Your task to perform on an android device: Go to Reddit.com Image 0: 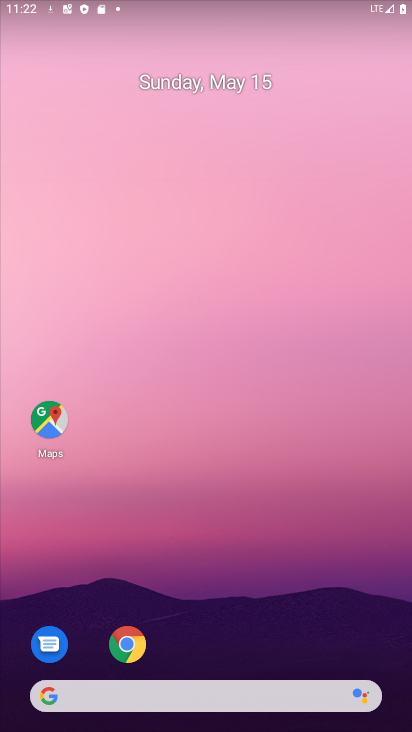
Step 0: drag from (237, 705) to (224, 227)
Your task to perform on an android device: Go to Reddit.com Image 1: 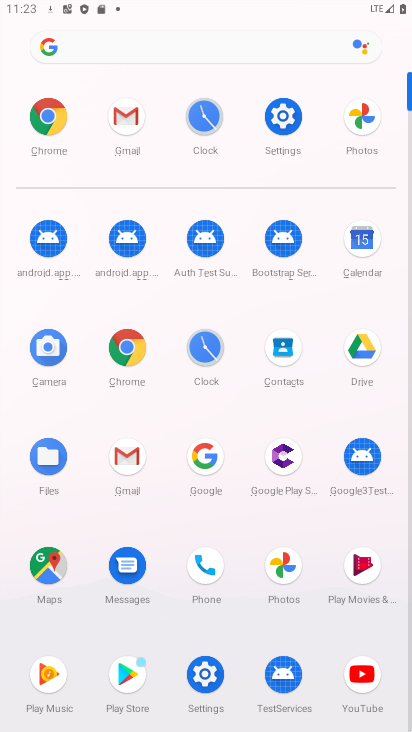
Step 1: click (40, 109)
Your task to perform on an android device: Go to Reddit.com Image 2: 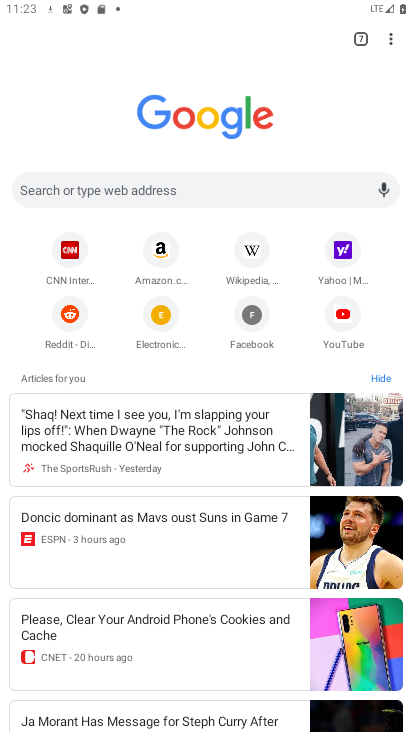
Step 2: click (134, 189)
Your task to perform on an android device: Go to Reddit.com Image 3: 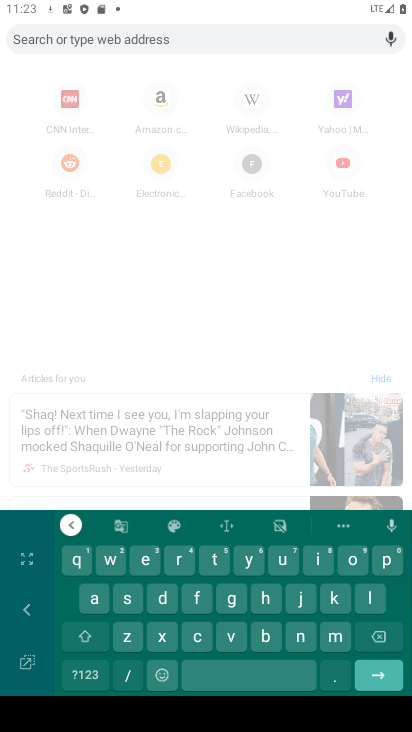
Step 3: click (31, 557)
Your task to perform on an android device: Go to Reddit.com Image 4: 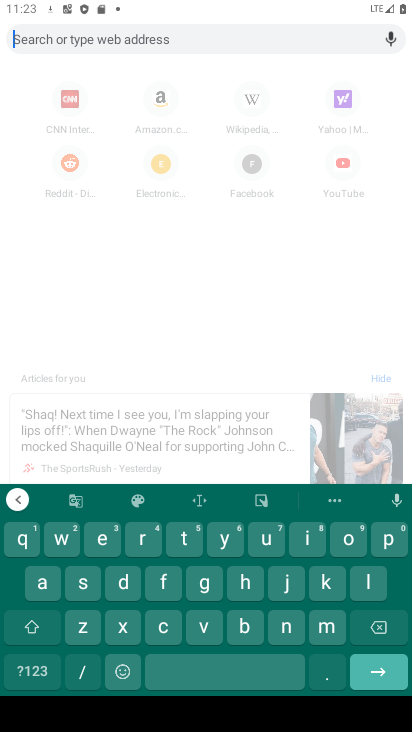
Step 4: click (140, 538)
Your task to perform on an android device: Go to Reddit.com Image 5: 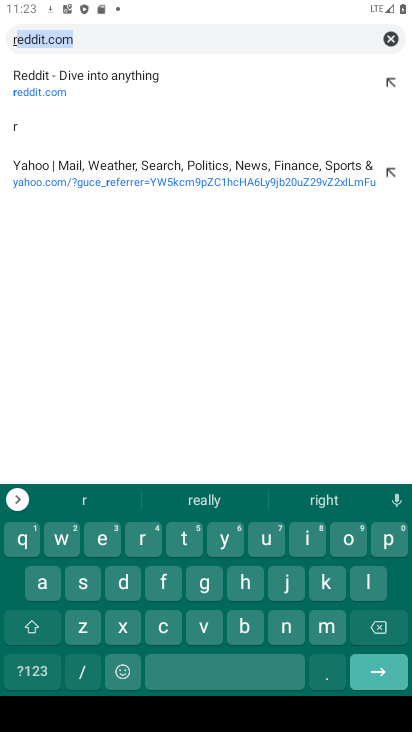
Step 5: click (103, 541)
Your task to perform on an android device: Go to Reddit.com Image 6: 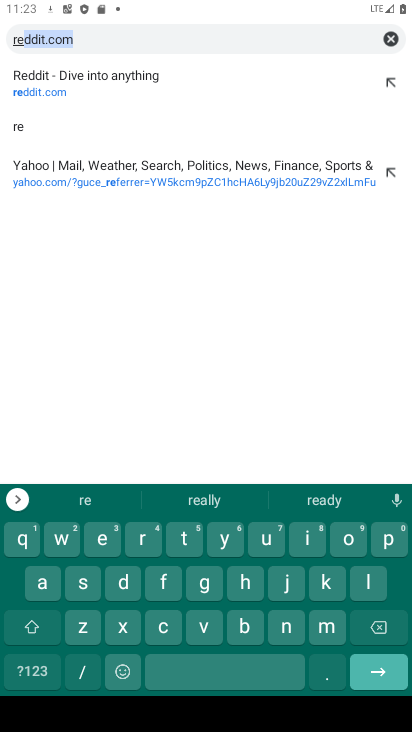
Step 6: click (112, 31)
Your task to perform on an android device: Go to Reddit.com Image 7: 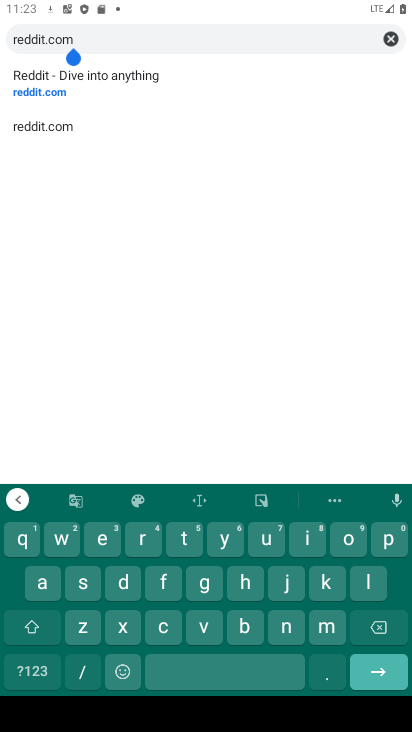
Step 7: click (383, 663)
Your task to perform on an android device: Go to Reddit.com Image 8: 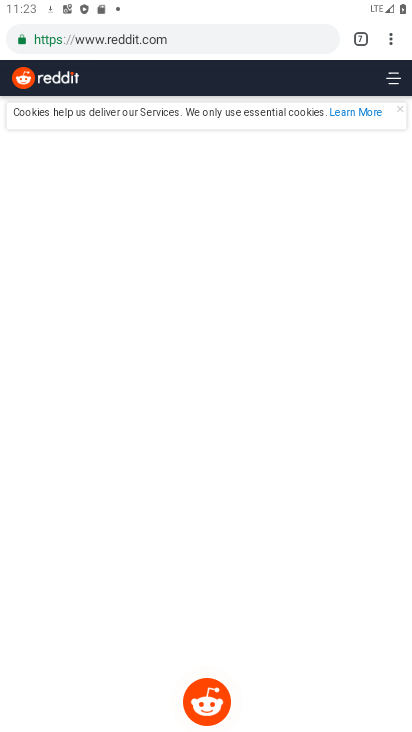
Step 8: task complete